Your task to perform on an android device: toggle improve location accuracy Image 0: 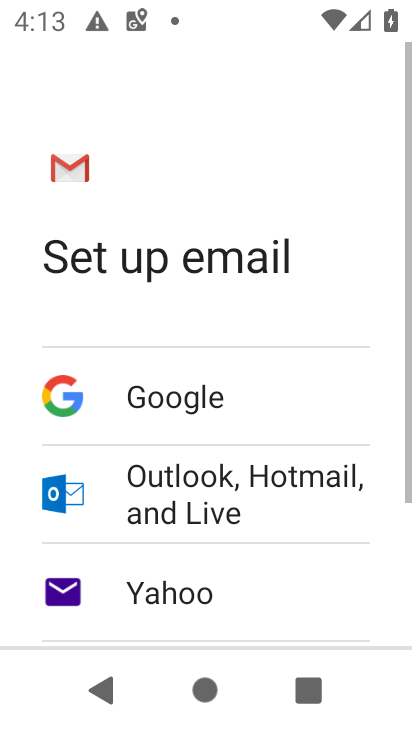
Step 0: press home button
Your task to perform on an android device: toggle improve location accuracy Image 1: 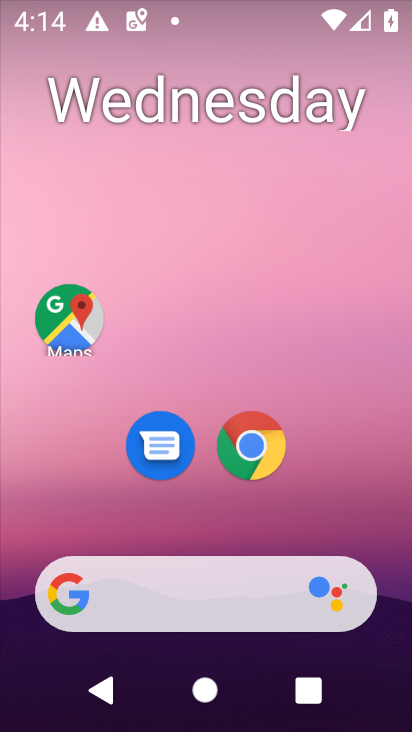
Step 1: drag from (339, 500) to (390, 17)
Your task to perform on an android device: toggle improve location accuracy Image 2: 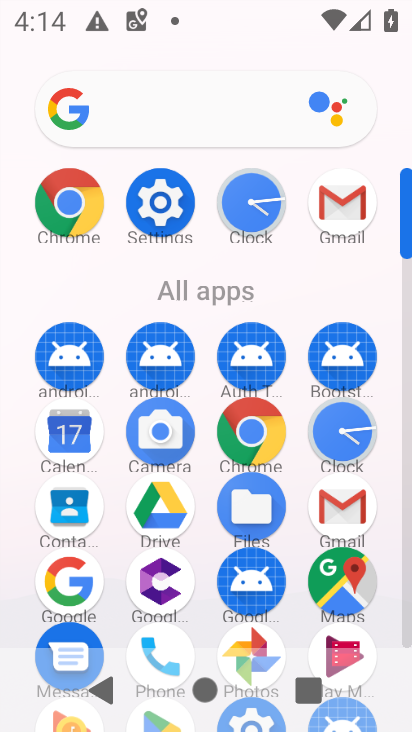
Step 2: drag from (204, 605) to (233, 291)
Your task to perform on an android device: toggle improve location accuracy Image 3: 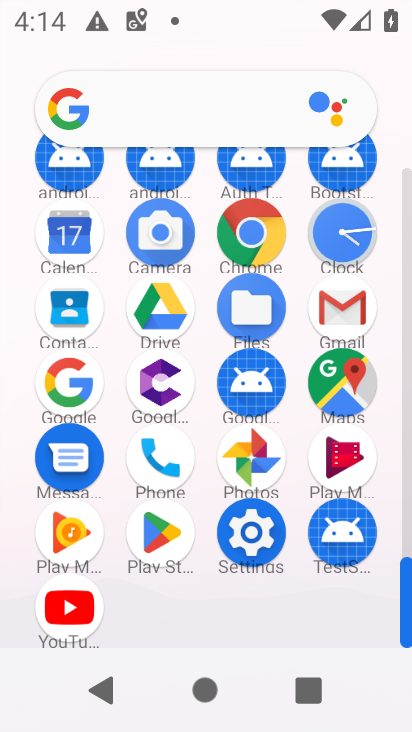
Step 3: click (259, 542)
Your task to perform on an android device: toggle improve location accuracy Image 4: 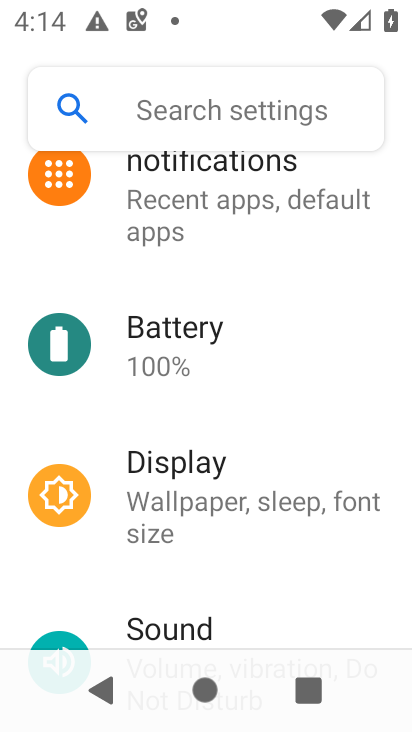
Step 4: drag from (261, 592) to (303, 120)
Your task to perform on an android device: toggle improve location accuracy Image 5: 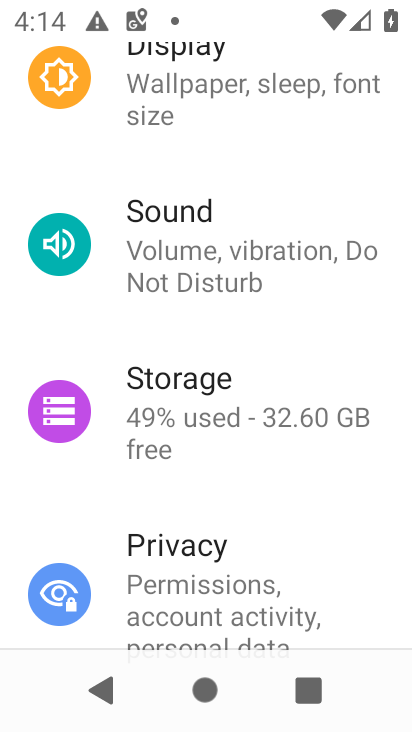
Step 5: drag from (238, 520) to (289, 117)
Your task to perform on an android device: toggle improve location accuracy Image 6: 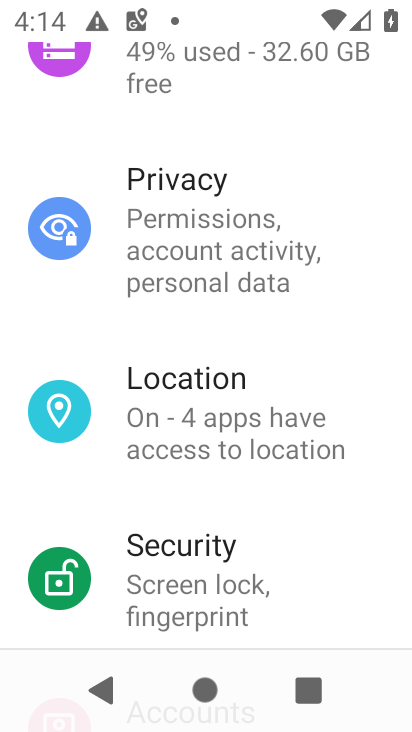
Step 6: click (203, 410)
Your task to perform on an android device: toggle improve location accuracy Image 7: 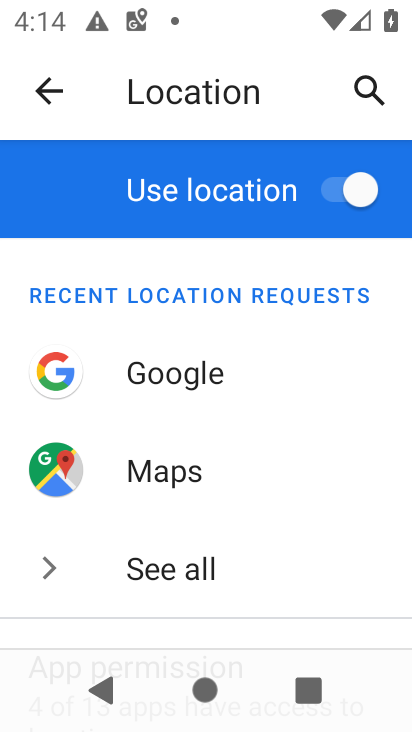
Step 7: drag from (288, 554) to (336, 110)
Your task to perform on an android device: toggle improve location accuracy Image 8: 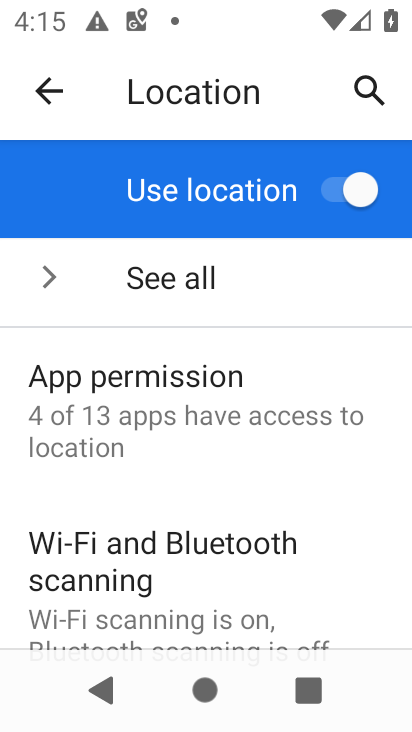
Step 8: drag from (227, 569) to (293, 87)
Your task to perform on an android device: toggle improve location accuracy Image 9: 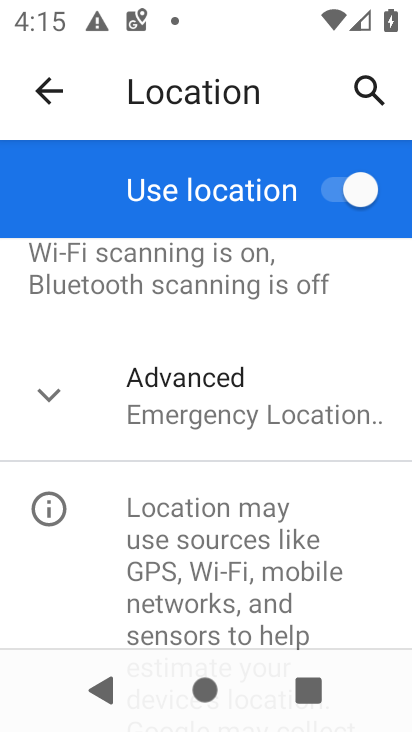
Step 9: click (236, 402)
Your task to perform on an android device: toggle improve location accuracy Image 10: 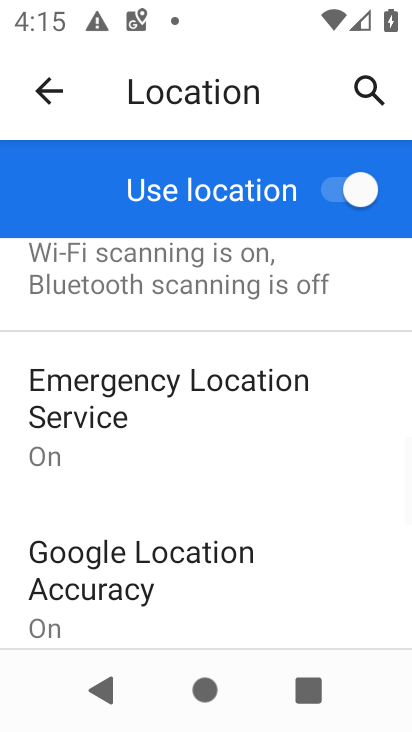
Step 10: drag from (253, 532) to (275, 157)
Your task to perform on an android device: toggle improve location accuracy Image 11: 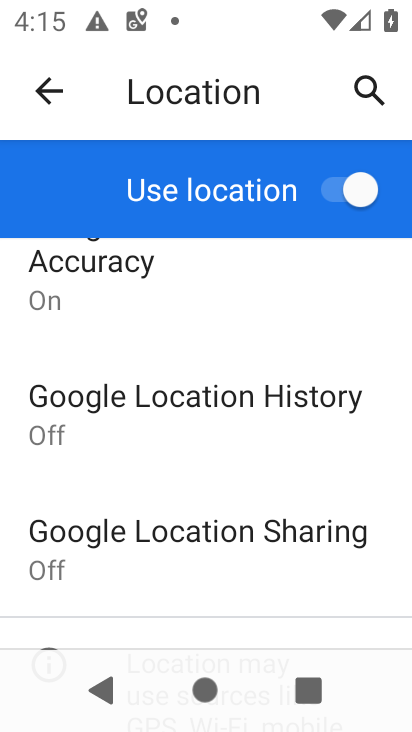
Step 11: drag from (274, 495) to (301, 143)
Your task to perform on an android device: toggle improve location accuracy Image 12: 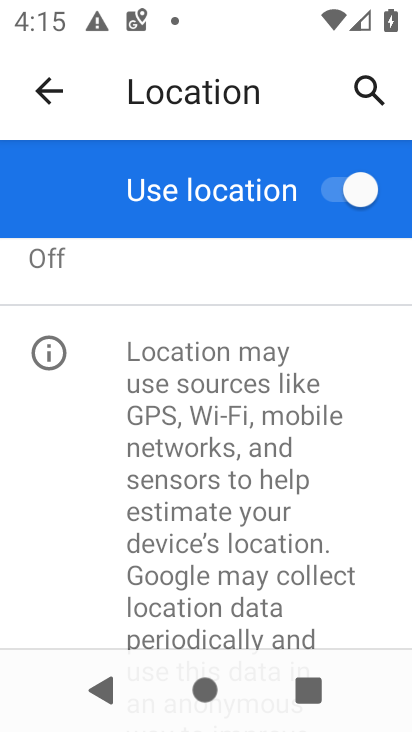
Step 12: drag from (225, 289) to (224, 511)
Your task to perform on an android device: toggle improve location accuracy Image 13: 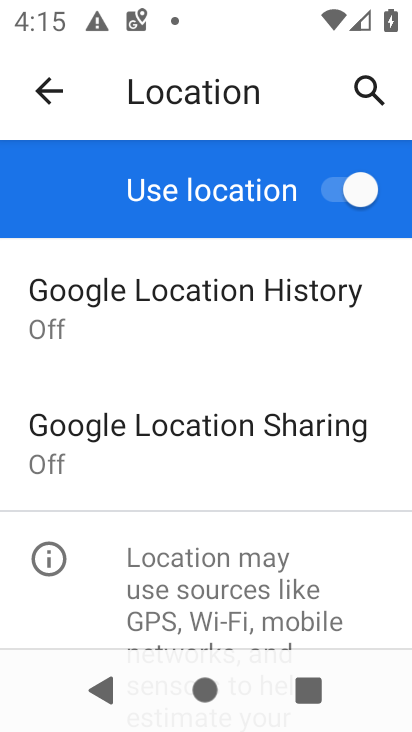
Step 13: drag from (202, 403) to (232, 133)
Your task to perform on an android device: toggle improve location accuracy Image 14: 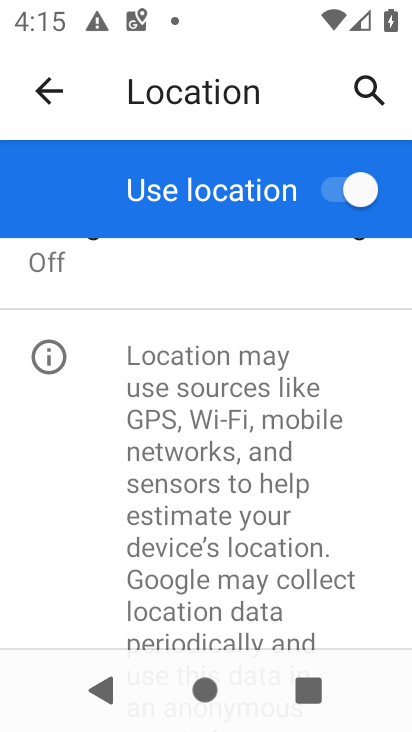
Step 14: drag from (157, 409) to (161, 728)
Your task to perform on an android device: toggle improve location accuracy Image 15: 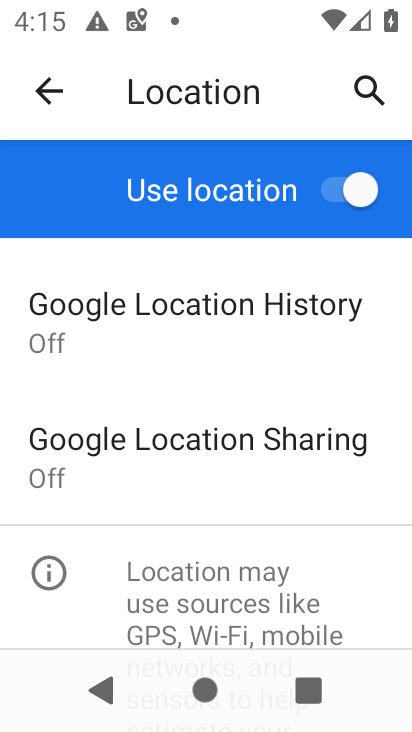
Step 15: drag from (249, 377) to (242, 646)
Your task to perform on an android device: toggle improve location accuracy Image 16: 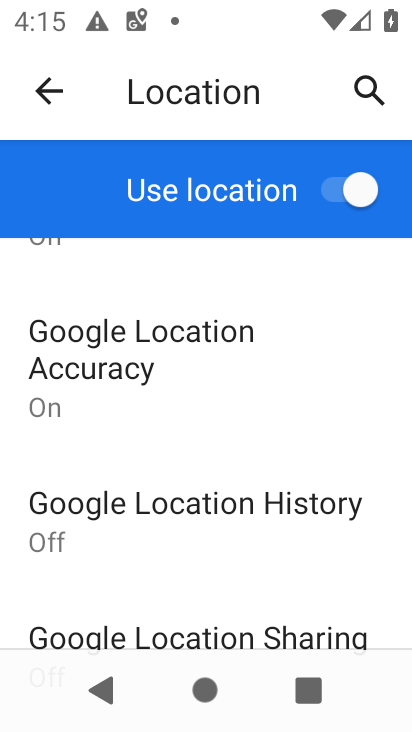
Step 16: click (144, 378)
Your task to perform on an android device: toggle improve location accuracy Image 17: 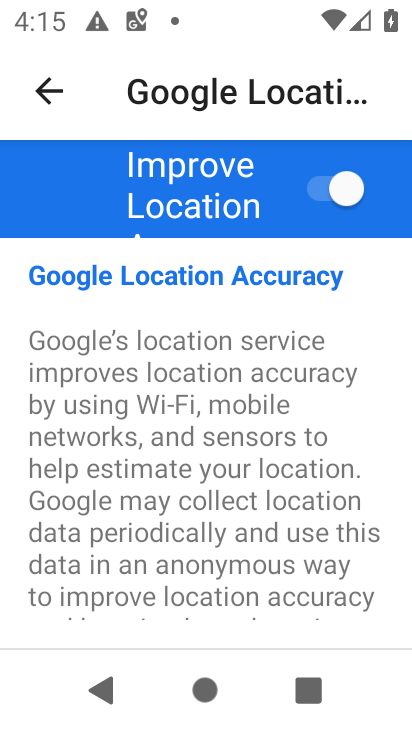
Step 17: click (357, 181)
Your task to perform on an android device: toggle improve location accuracy Image 18: 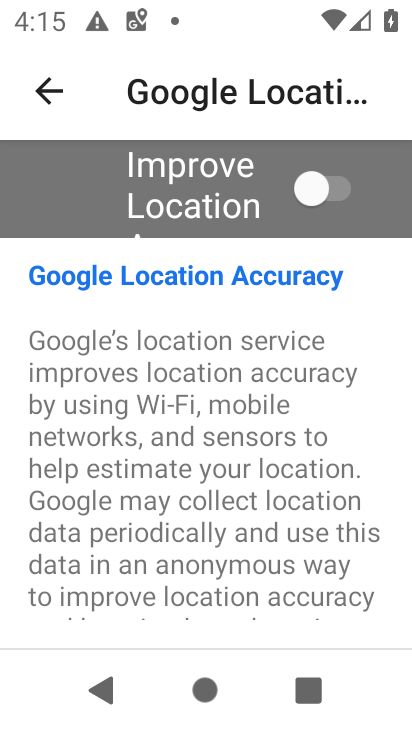
Step 18: task complete